Your task to perform on an android device: turn off location history Image 0: 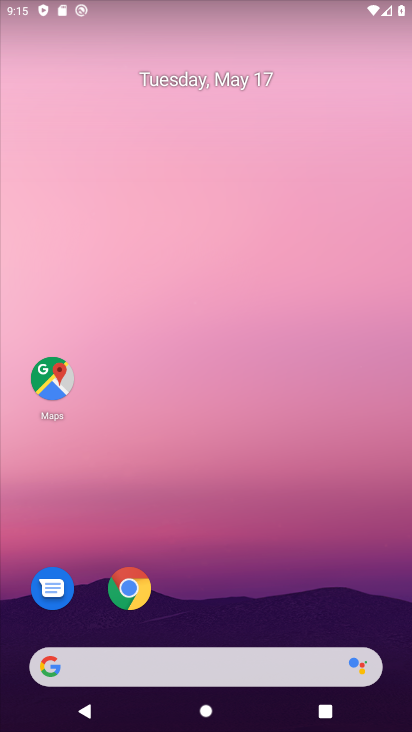
Step 0: drag from (190, 647) to (98, 39)
Your task to perform on an android device: turn off location history Image 1: 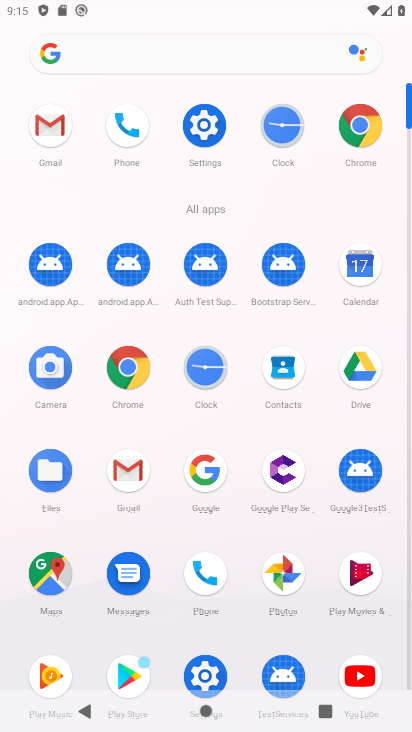
Step 1: click (215, 126)
Your task to perform on an android device: turn off location history Image 2: 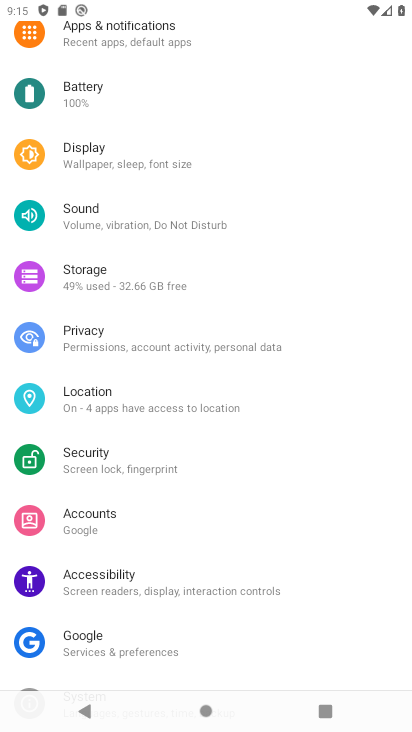
Step 2: click (117, 390)
Your task to perform on an android device: turn off location history Image 3: 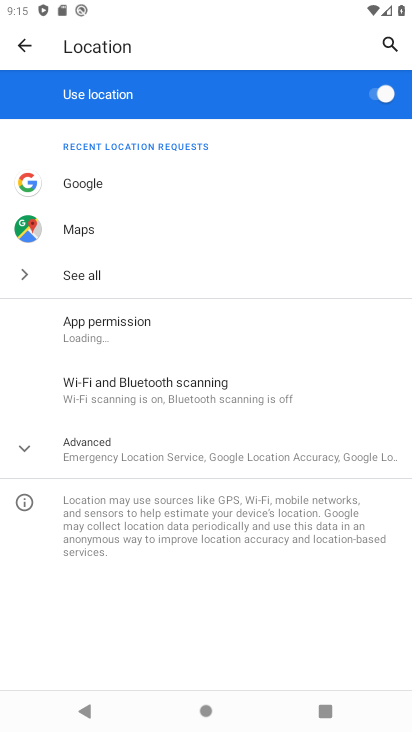
Step 3: click (134, 461)
Your task to perform on an android device: turn off location history Image 4: 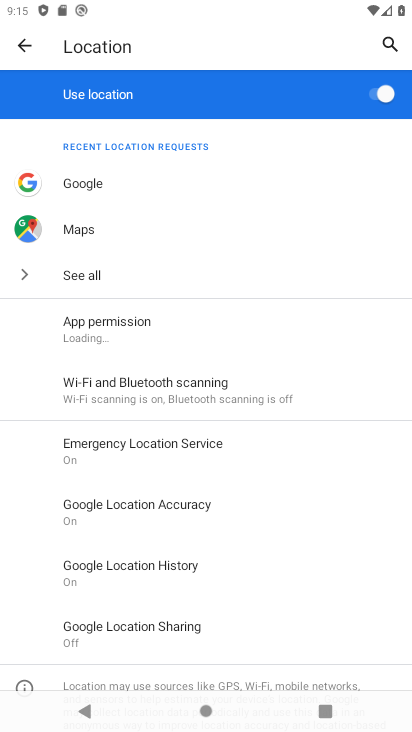
Step 4: click (138, 579)
Your task to perform on an android device: turn off location history Image 5: 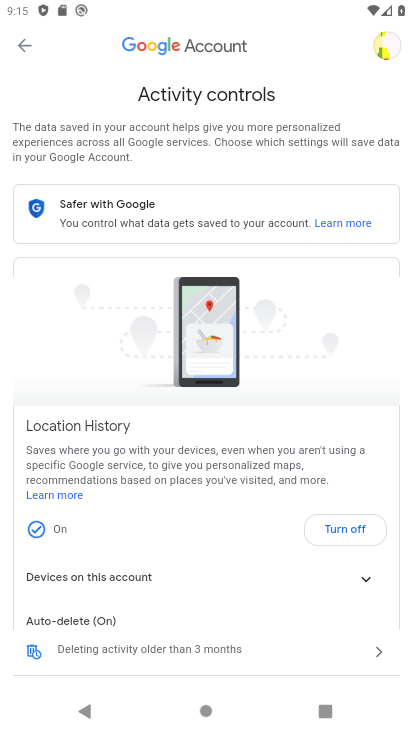
Step 5: click (176, 544)
Your task to perform on an android device: turn off location history Image 6: 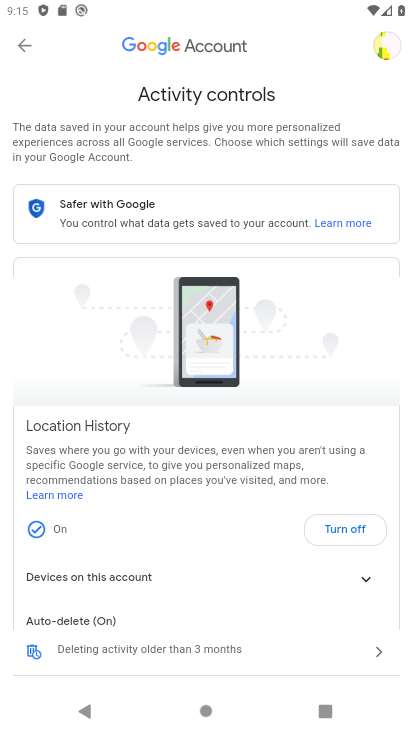
Step 6: click (359, 523)
Your task to perform on an android device: turn off location history Image 7: 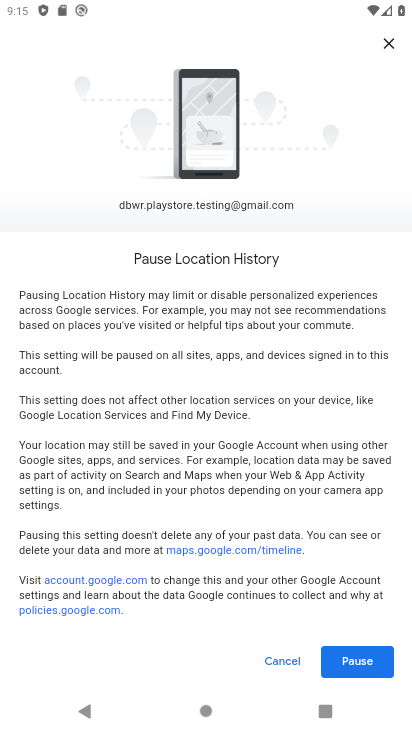
Step 7: click (366, 657)
Your task to perform on an android device: turn off location history Image 8: 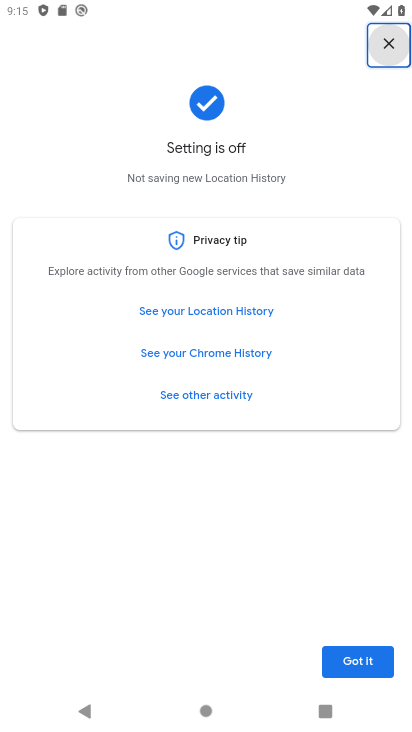
Step 8: click (367, 648)
Your task to perform on an android device: turn off location history Image 9: 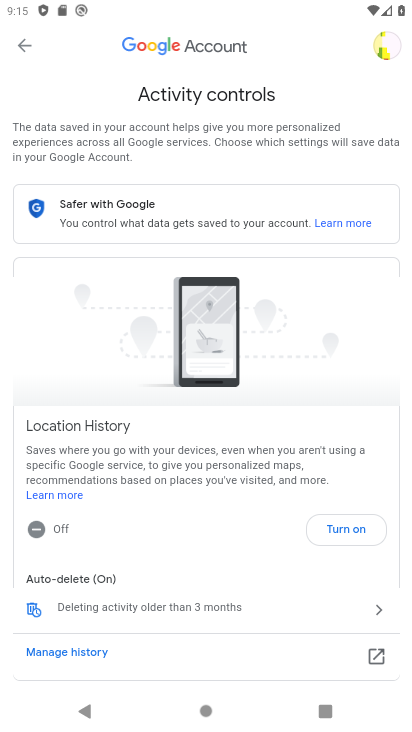
Step 9: task complete